Your task to perform on an android device: open chrome and create a bookmark for the current page Image 0: 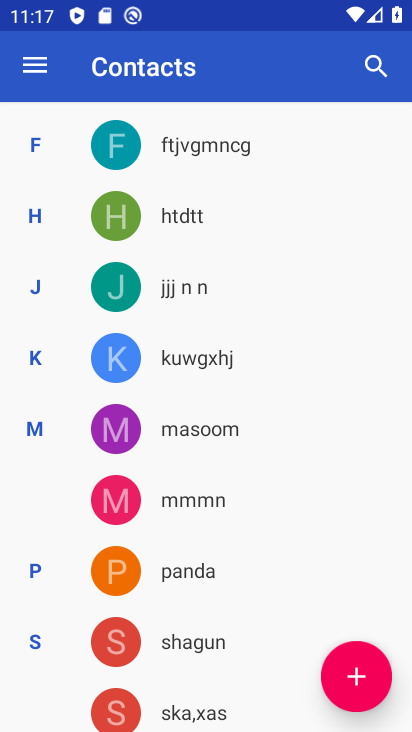
Step 0: press home button
Your task to perform on an android device: open chrome and create a bookmark for the current page Image 1: 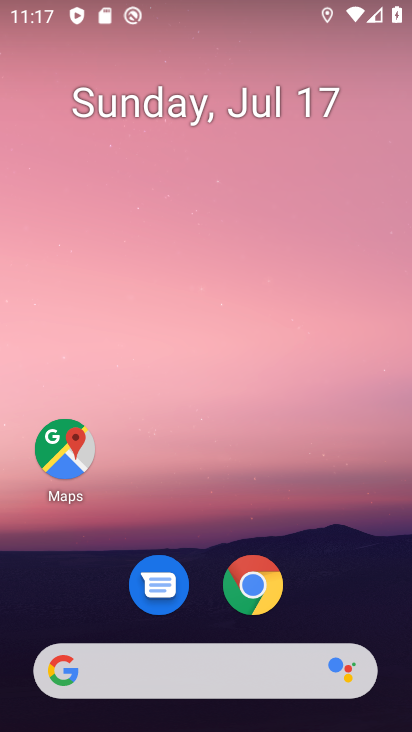
Step 1: click (246, 580)
Your task to perform on an android device: open chrome and create a bookmark for the current page Image 2: 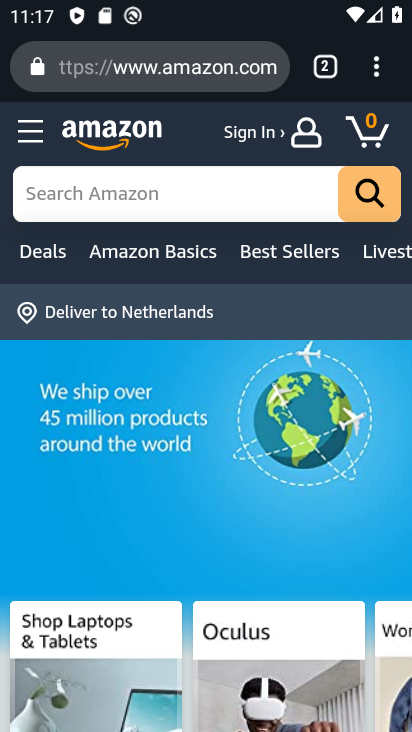
Step 2: click (377, 74)
Your task to perform on an android device: open chrome and create a bookmark for the current page Image 3: 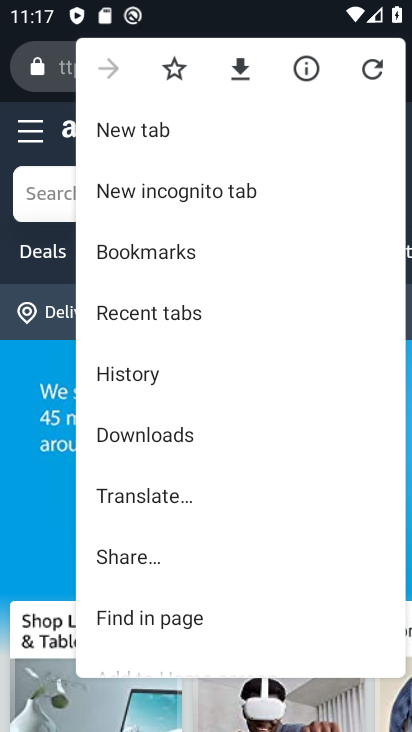
Step 3: click (173, 64)
Your task to perform on an android device: open chrome and create a bookmark for the current page Image 4: 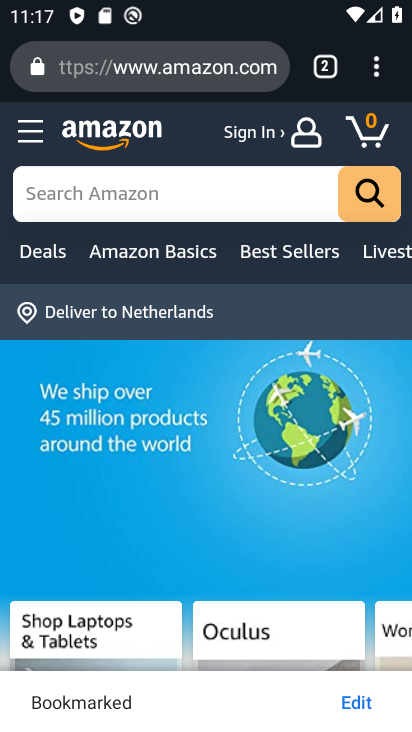
Step 4: task complete